Your task to perform on an android device: change text size in settings app Image 0: 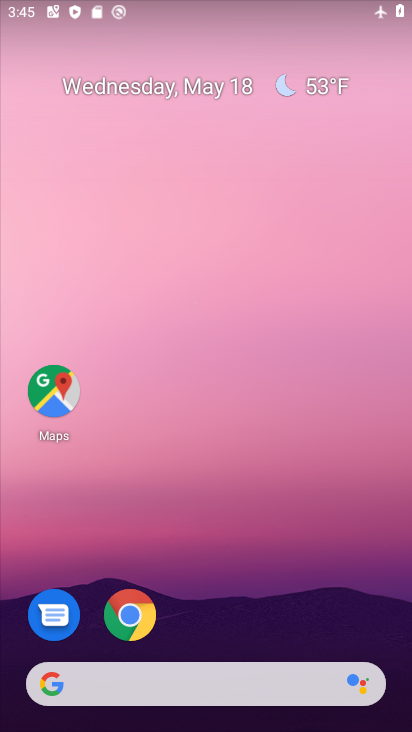
Step 0: drag from (259, 568) to (300, 107)
Your task to perform on an android device: change text size in settings app Image 1: 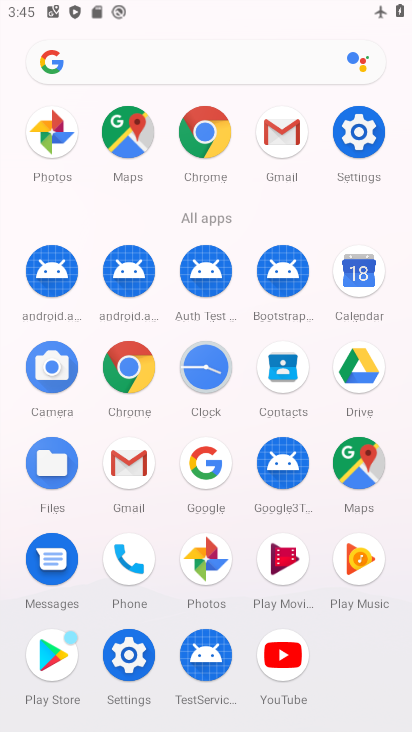
Step 1: click (343, 122)
Your task to perform on an android device: change text size in settings app Image 2: 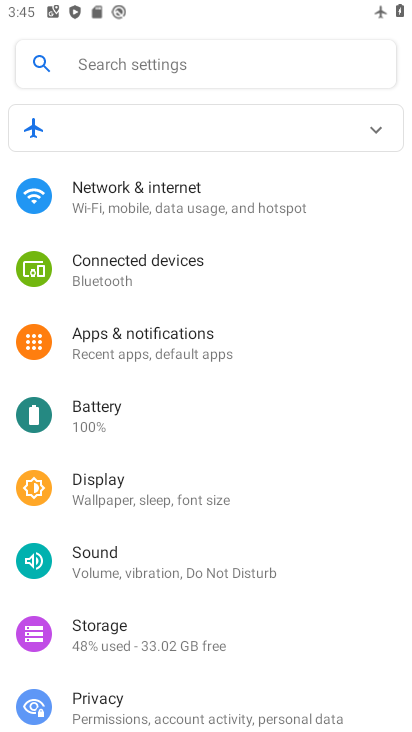
Step 2: click (126, 493)
Your task to perform on an android device: change text size in settings app Image 3: 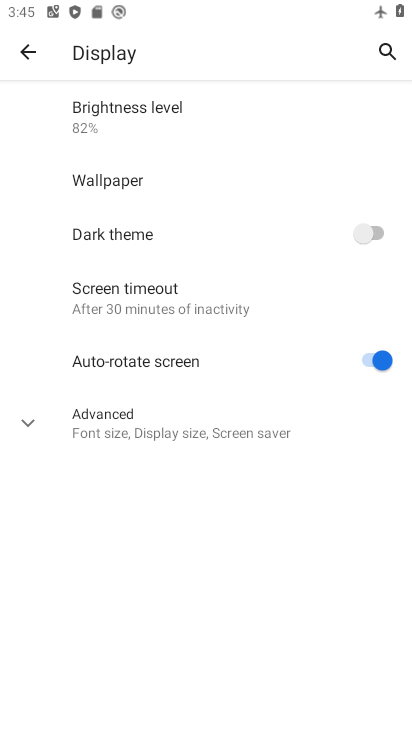
Step 3: click (151, 433)
Your task to perform on an android device: change text size in settings app Image 4: 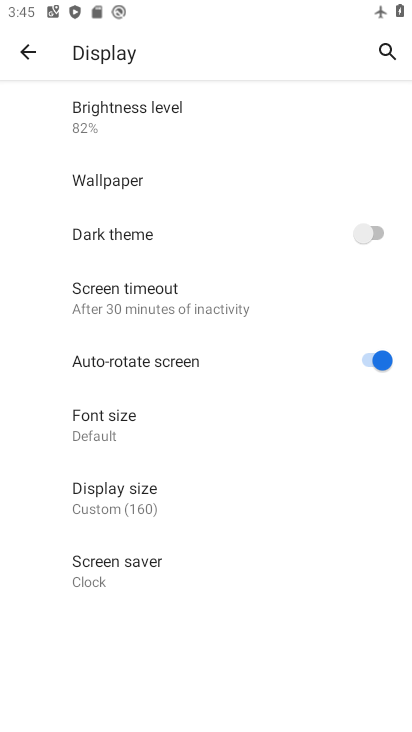
Step 4: click (139, 424)
Your task to perform on an android device: change text size in settings app Image 5: 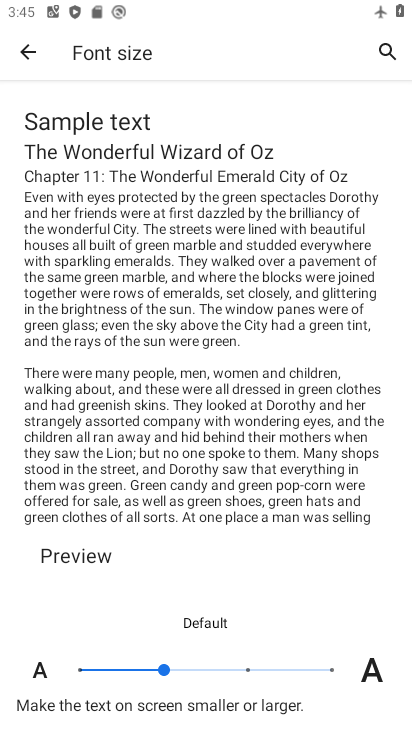
Step 5: click (93, 671)
Your task to perform on an android device: change text size in settings app Image 6: 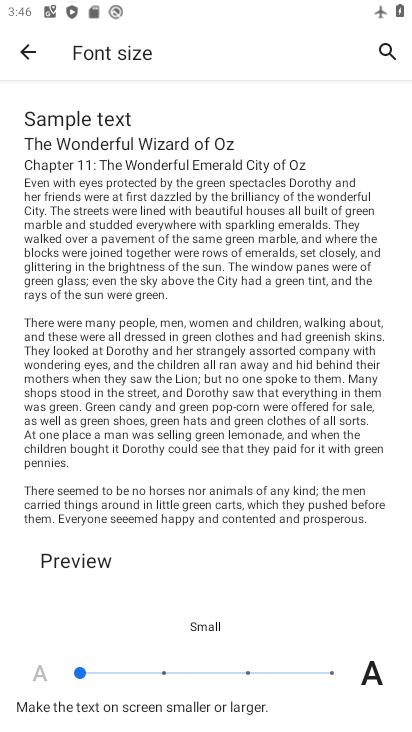
Step 6: click (98, 668)
Your task to perform on an android device: change text size in settings app Image 7: 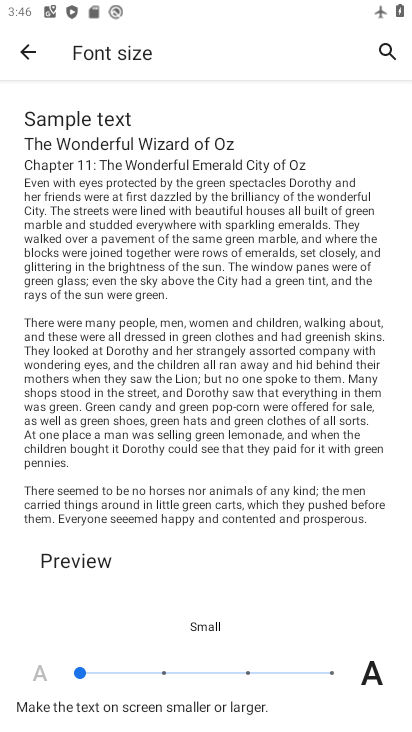
Step 7: task complete